Your task to perform on an android device: turn on improve location accuracy Image 0: 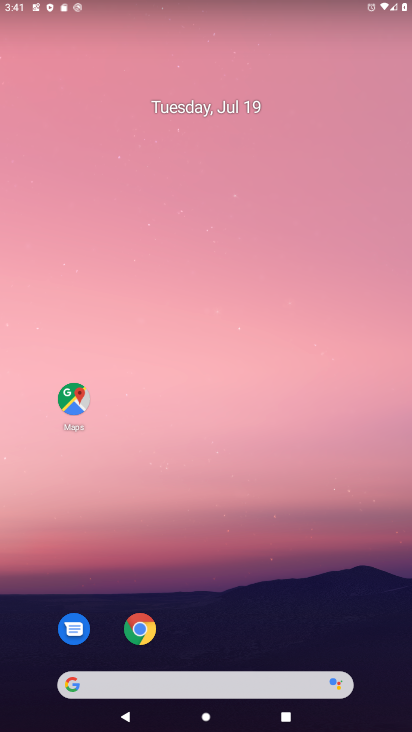
Step 0: drag from (262, 666) to (245, 356)
Your task to perform on an android device: turn on improve location accuracy Image 1: 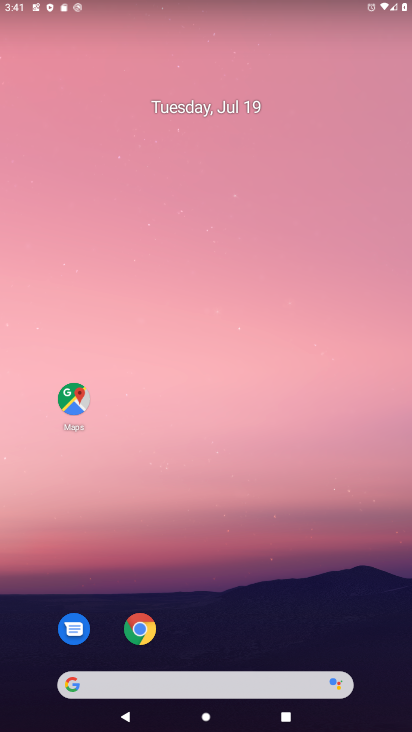
Step 1: drag from (217, 666) to (133, 164)
Your task to perform on an android device: turn on improve location accuracy Image 2: 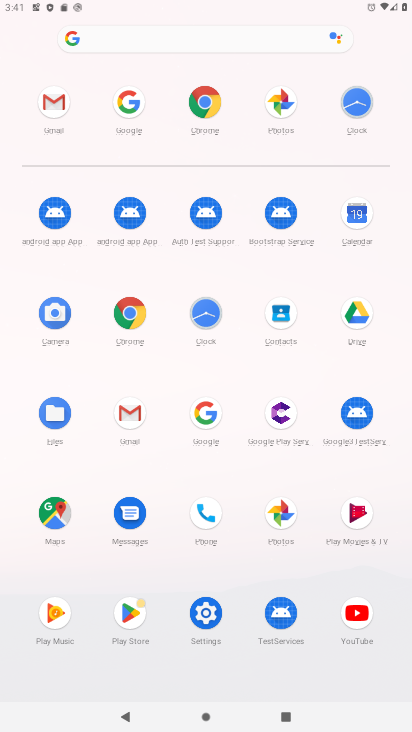
Step 2: click (210, 617)
Your task to perform on an android device: turn on improve location accuracy Image 3: 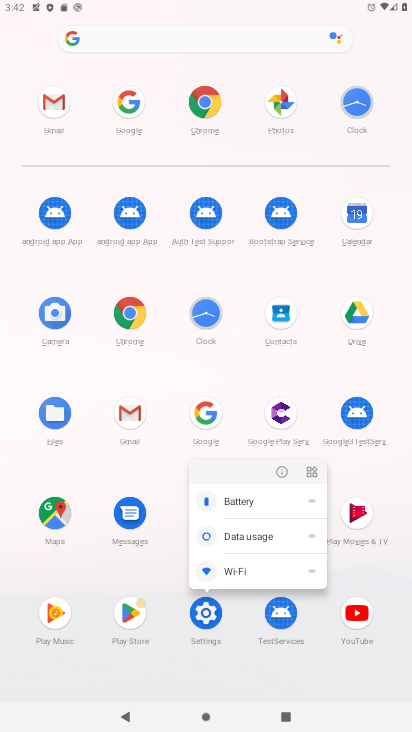
Step 3: click (207, 609)
Your task to perform on an android device: turn on improve location accuracy Image 4: 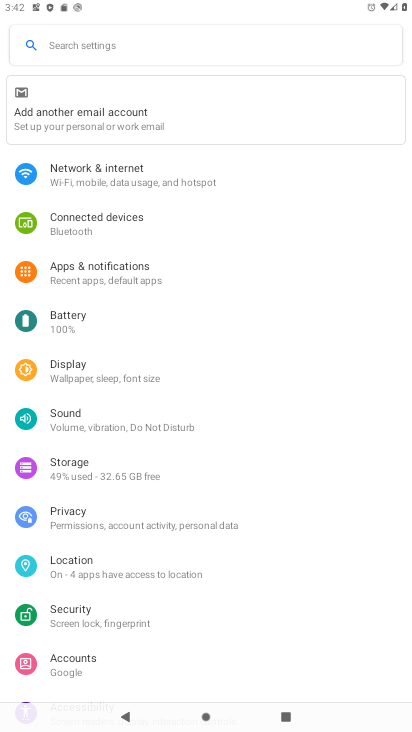
Step 4: click (63, 569)
Your task to perform on an android device: turn on improve location accuracy Image 5: 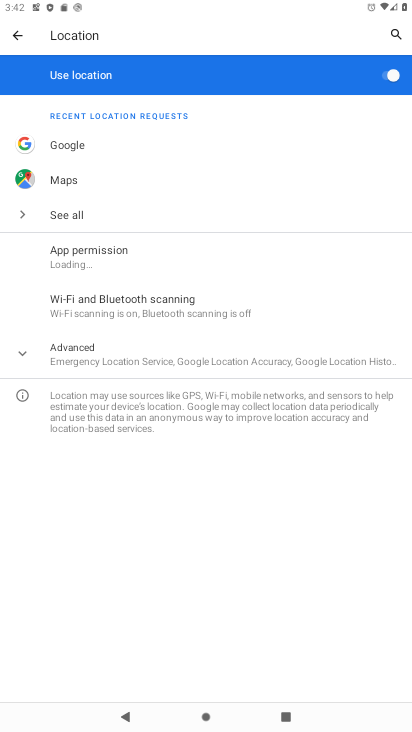
Step 5: click (119, 353)
Your task to perform on an android device: turn on improve location accuracy Image 6: 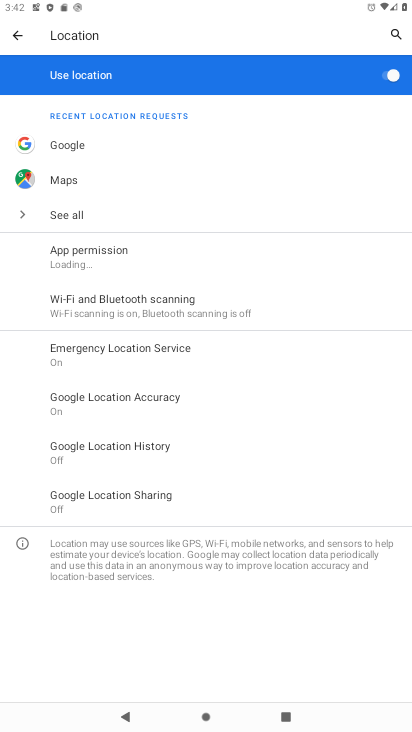
Step 6: click (126, 388)
Your task to perform on an android device: turn on improve location accuracy Image 7: 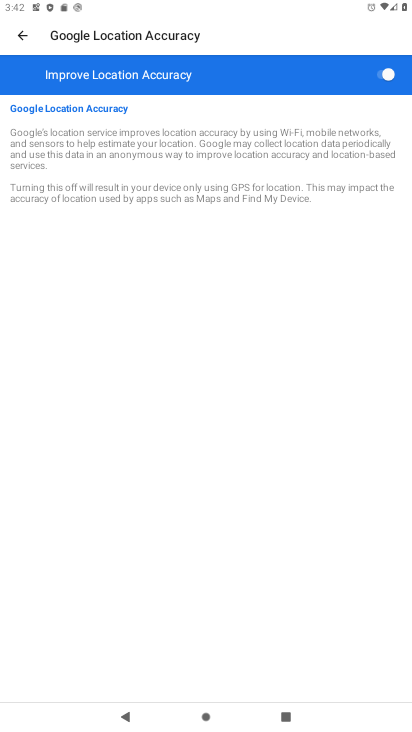
Step 7: task complete